Your task to perform on an android device: open a new tab in the chrome app Image 0: 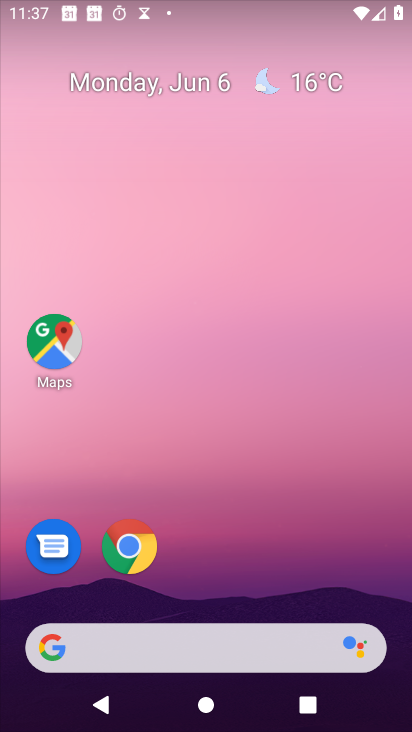
Step 0: click (138, 550)
Your task to perform on an android device: open a new tab in the chrome app Image 1: 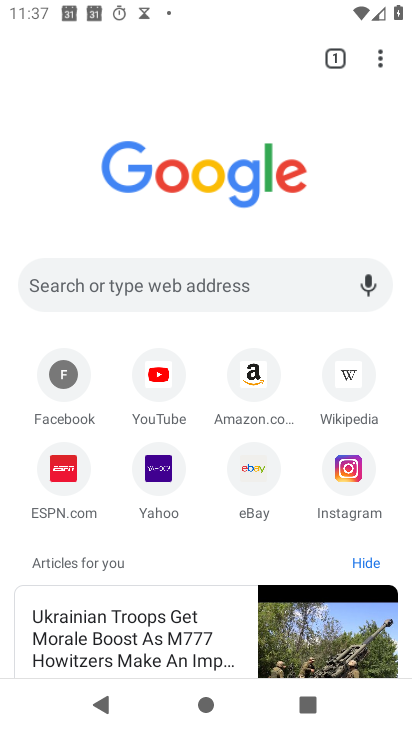
Step 1: click (382, 59)
Your task to perform on an android device: open a new tab in the chrome app Image 2: 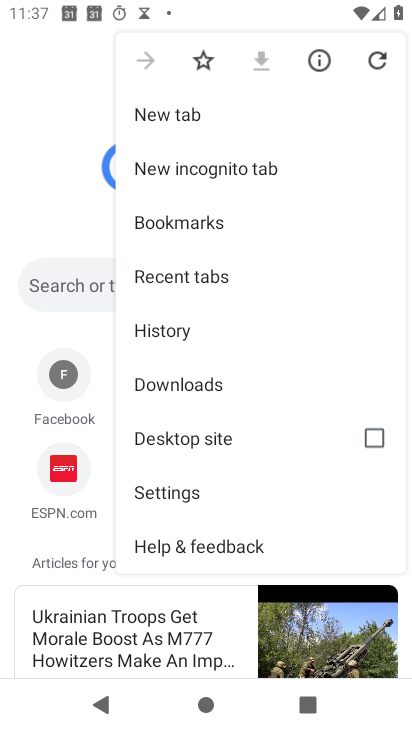
Step 2: click (166, 119)
Your task to perform on an android device: open a new tab in the chrome app Image 3: 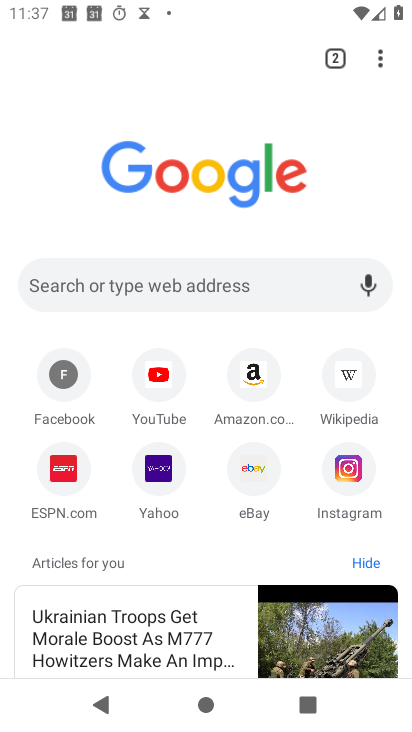
Step 3: task complete